Your task to perform on an android device: Go to location settings Image 0: 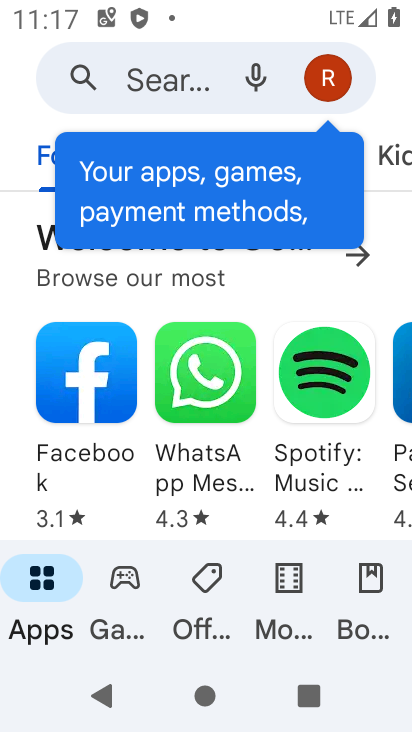
Step 0: press back button
Your task to perform on an android device: Go to location settings Image 1: 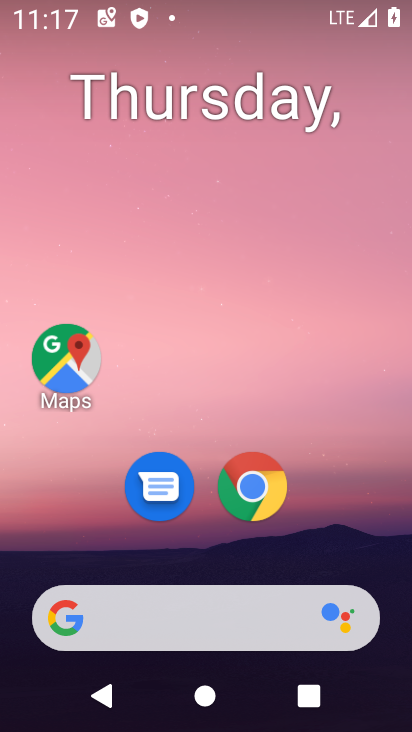
Step 1: drag from (172, 560) to (243, 7)
Your task to perform on an android device: Go to location settings Image 2: 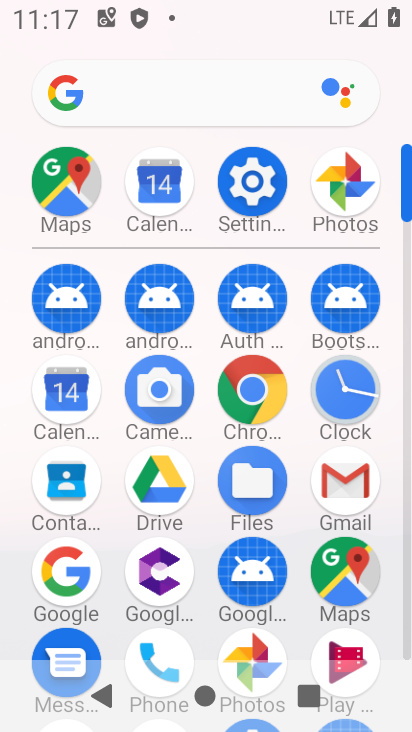
Step 2: click (244, 179)
Your task to perform on an android device: Go to location settings Image 3: 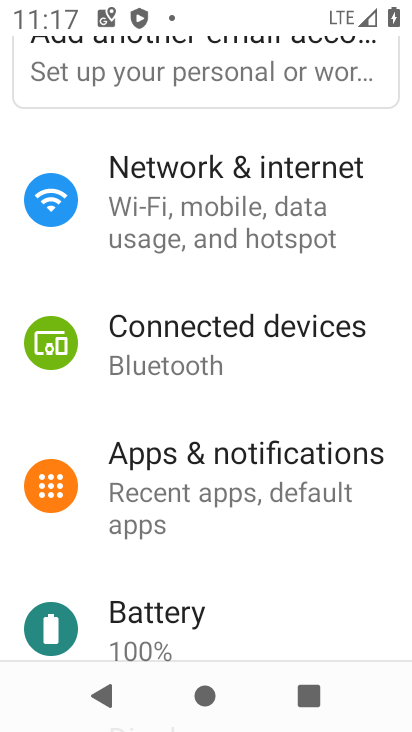
Step 3: drag from (174, 591) to (310, 101)
Your task to perform on an android device: Go to location settings Image 4: 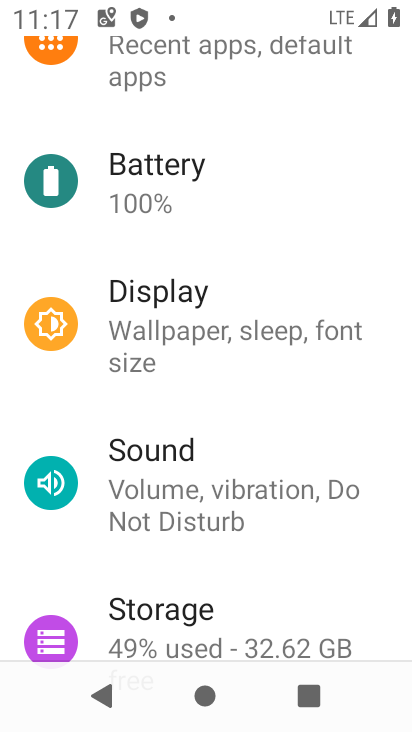
Step 4: drag from (232, 602) to (336, 92)
Your task to perform on an android device: Go to location settings Image 5: 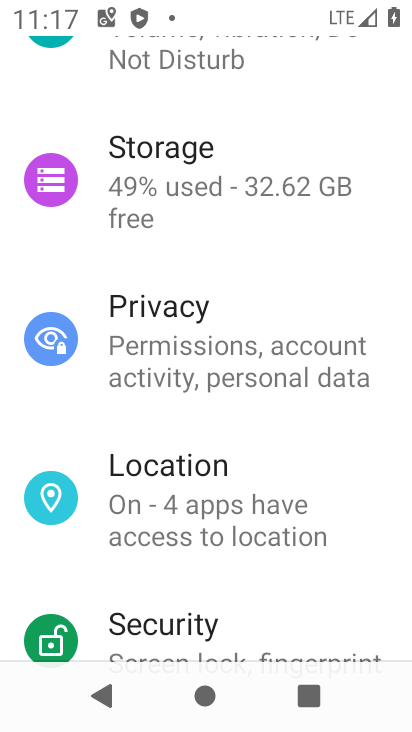
Step 5: click (208, 499)
Your task to perform on an android device: Go to location settings Image 6: 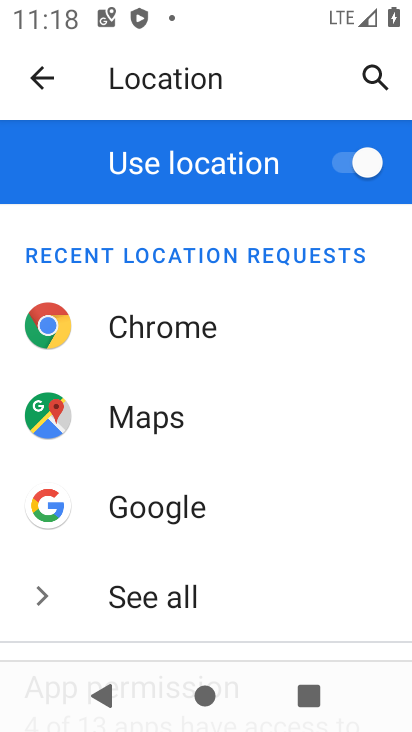
Step 6: task complete